Your task to perform on an android device: Is it going to rain today? Image 0: 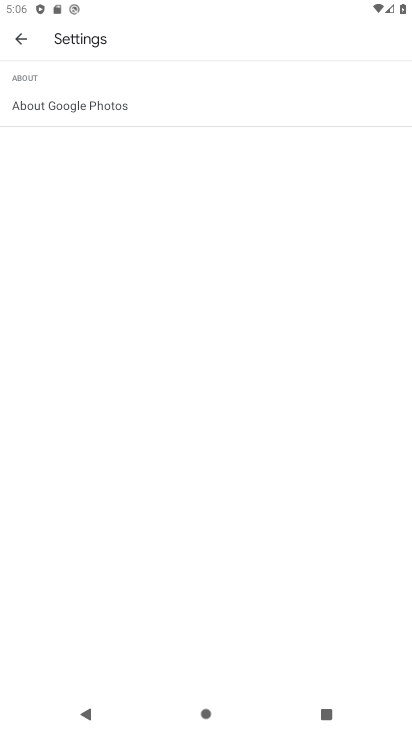
Step 0: press home button
Your task to perform on an android device: Is it going to rain today? Image 1: 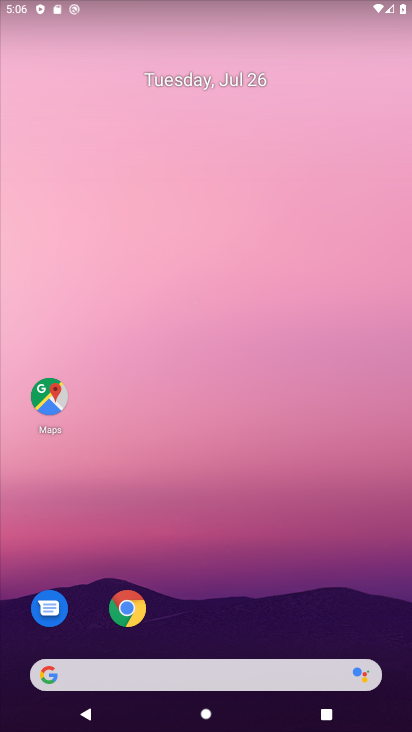
Step 1: click (43, 679)
Your task to perform on an android device: Is it going to rain today? Image 2: 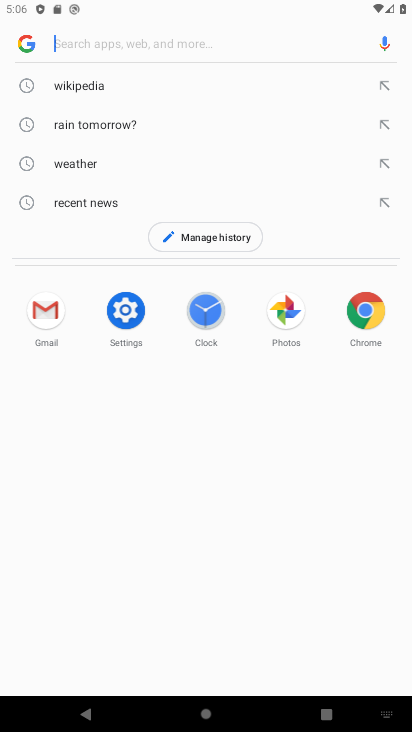
Step 2: type "rain today?"
Your task to perform on an android device: Is it going to rain today? Image 3: 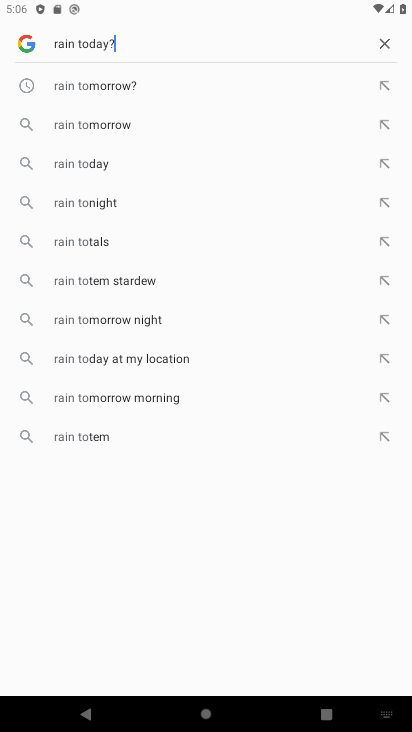
Step 3: press enter
Your task to perform on an android device: Is it going to rain today? Image 4: 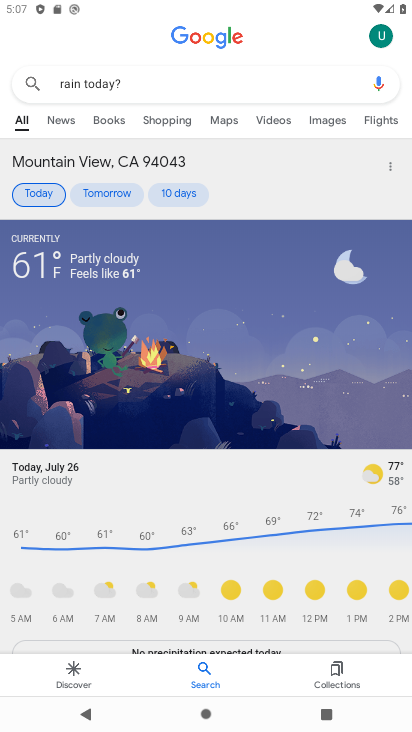
Step 4: task complete